Your task to perform on an android device: Open privacy settings Image 0: 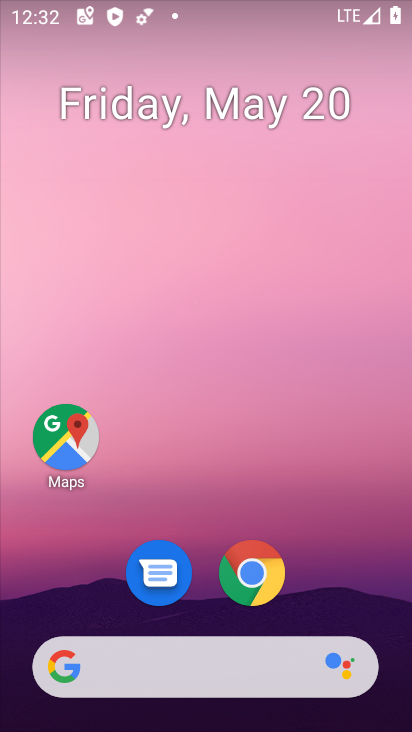
Step 0: drag from (193, 605) to (289, 12)
Your task to perform on an android device: Open privacy settings Image 1: 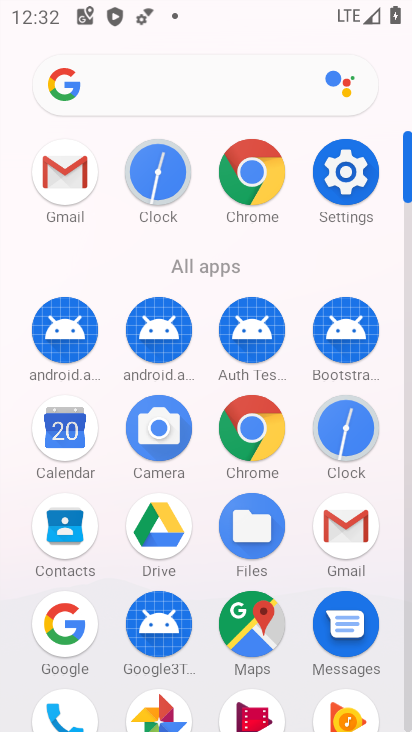
Step 1: click (365, 183)
Your task to perform on an android device: Open privacy settings Image 2: 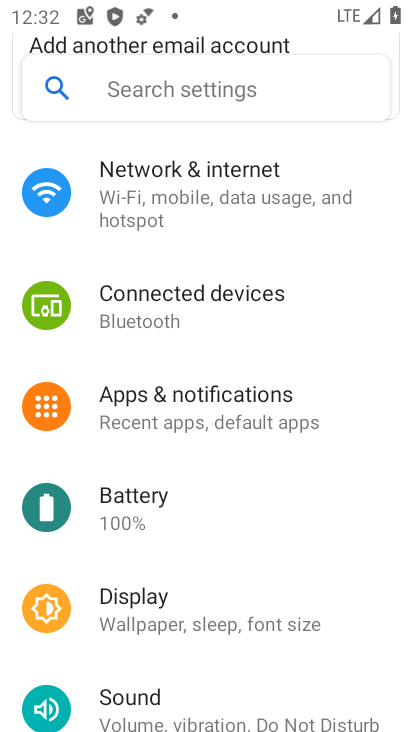
Step 2: drag from (190, 495) to (221, 260)
Your task to perform on an android device: Open privacy settings Image 3: 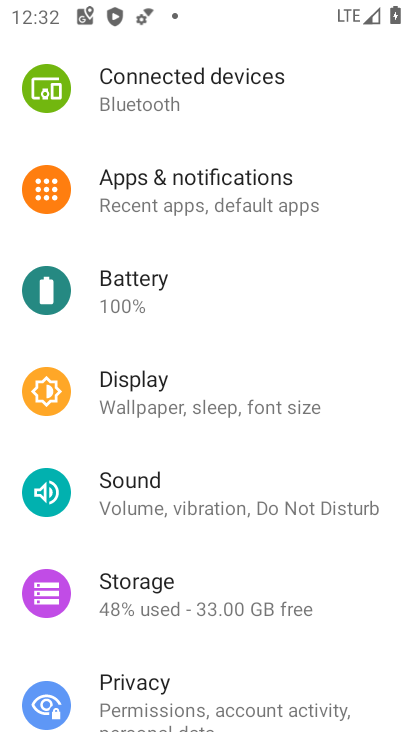
Step 3: drag from (164, 576) to (195, 370)
Your task to perform on an android device: Open privacy settings Image 4: 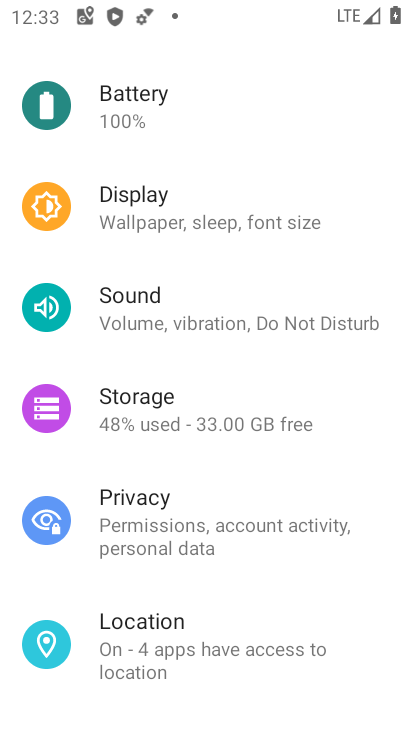
Step 4: click (164, 528)
Your task to perform on an android device: Open privacy settings Image 5: 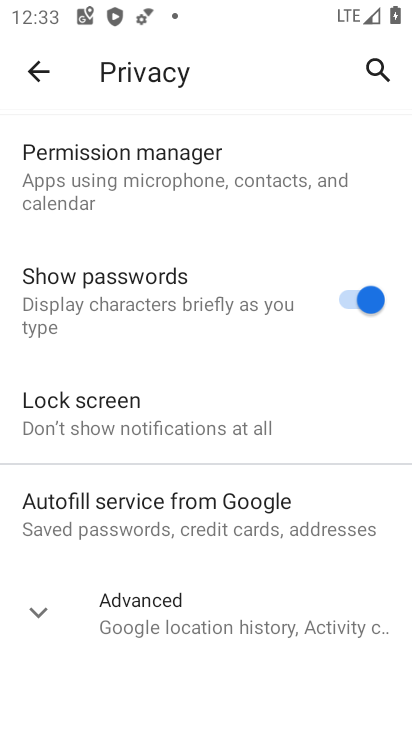
Step 5: task complete